Your task to perform on an android device: Open my contact list Image 0: 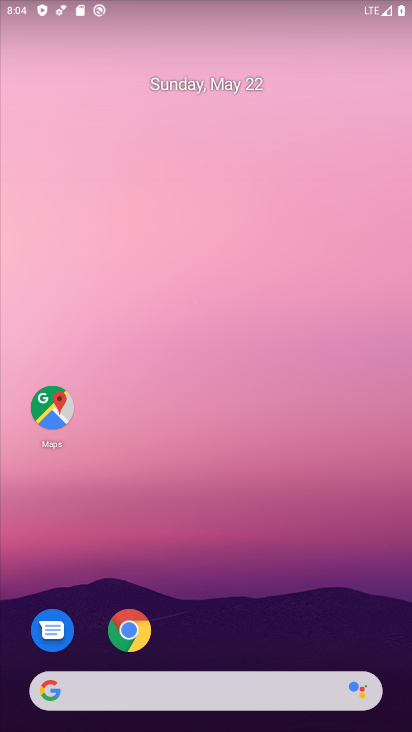
Step 0: drag from (384, 651) to (333, 114)
Your task to perform on an android device: Open my contact list Image 1: 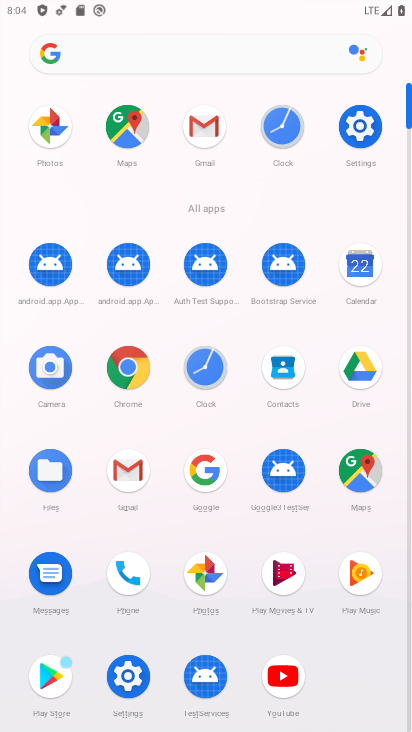
Step 1: click (285, 366)
Your task to perform on an android device: Open my contact list Image 2: 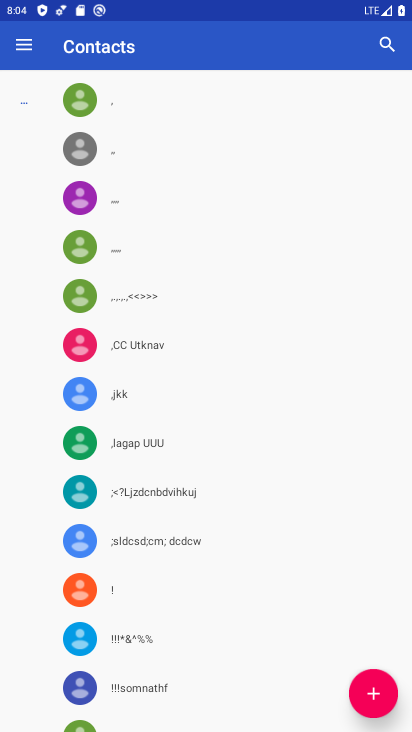
Step 2: task complete